Your task to perform on an android device: Open privacy settings Image 0: 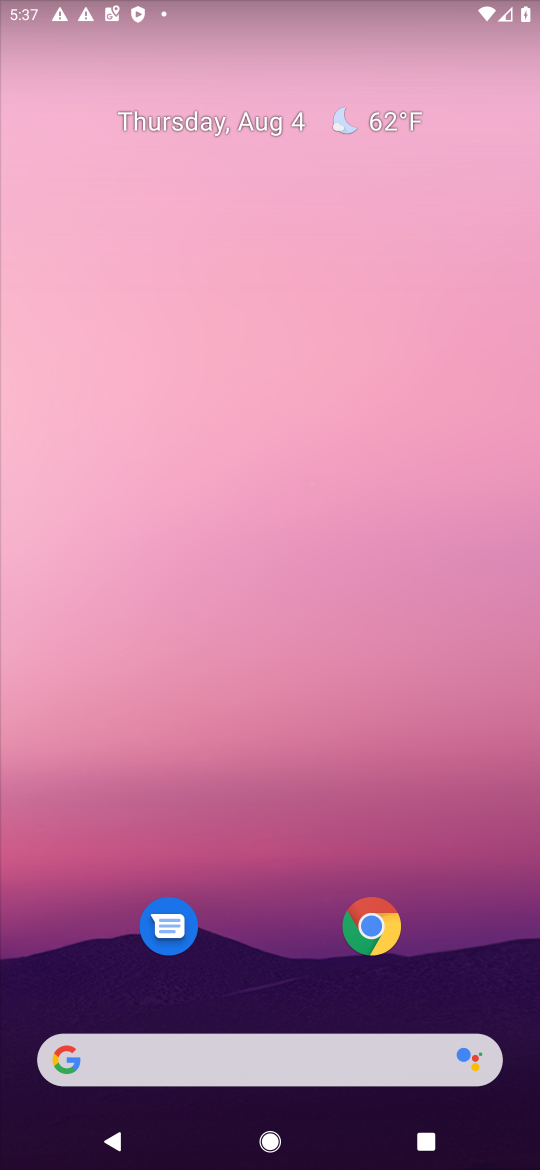
Step 0: drag from (275, 768) to (398, 198)
Your task to perform on an android device: Open privacy settings Image 1: 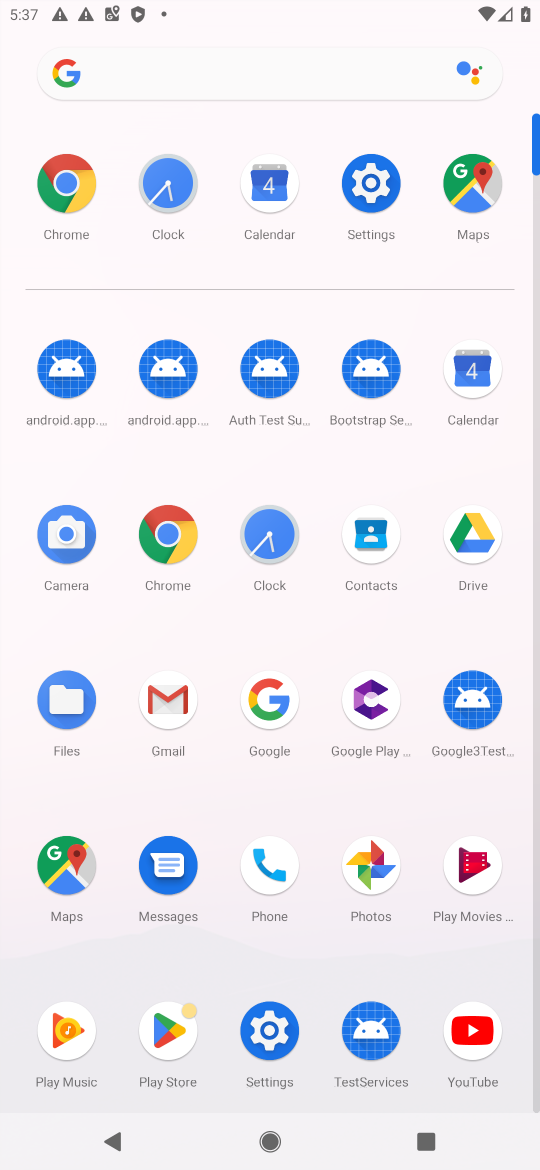
Step 1: click (362, 206)
Your task to perform on an android device: Open privacy settings Image 2: 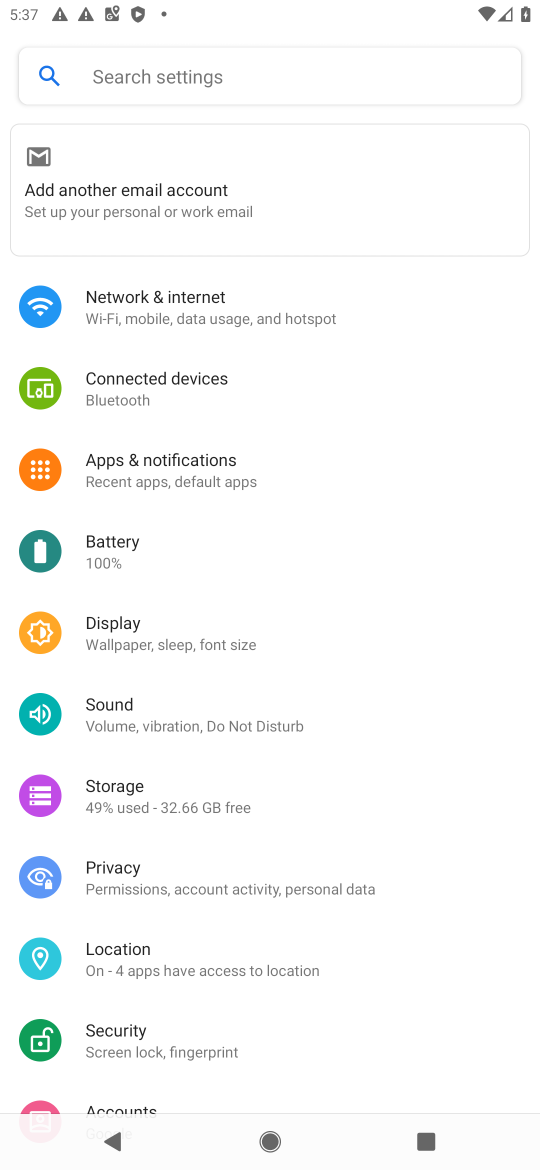
Step 2: click (142, 871)
Your task to perform on an android device: Open privacy settings Image 3: 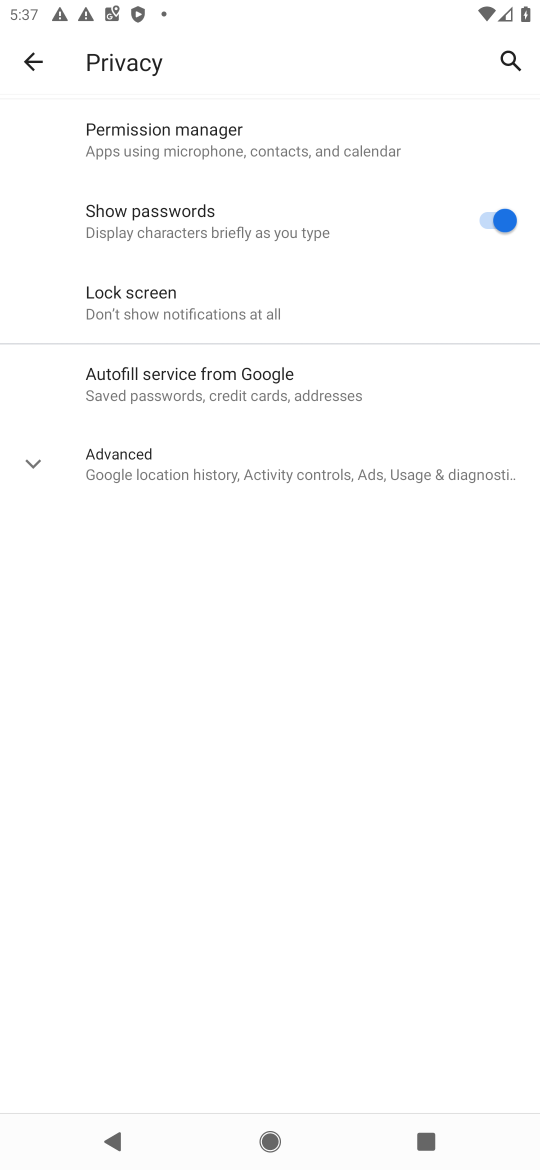
Step 3: task complete